Your task to perform on an android device: Open internet settings Image 0: 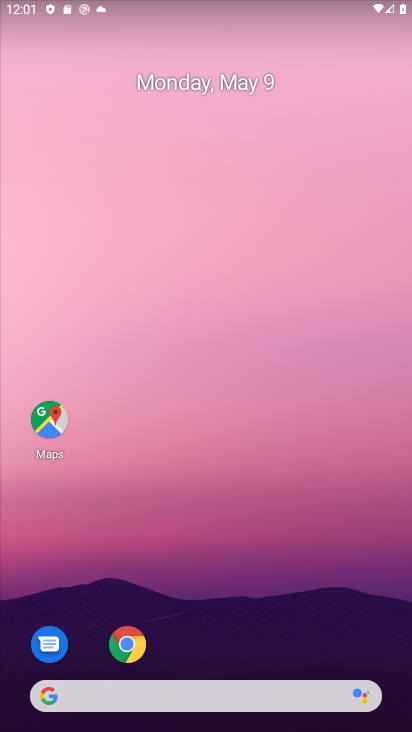
Step 0: drag from (232, 629) to (196, 41)
Your task to perform on an android device: Open internet settings Image 1: 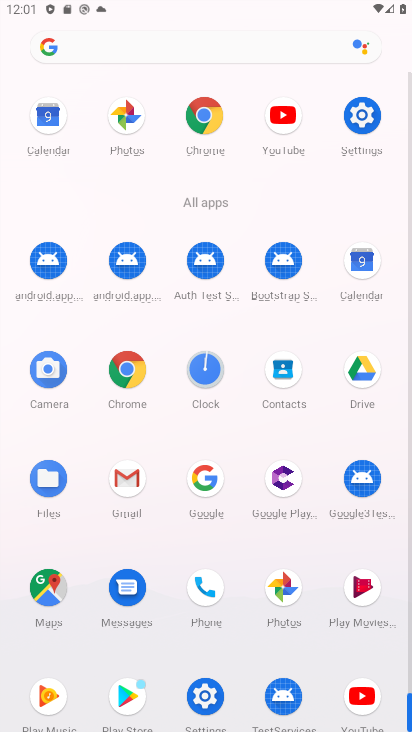
Step 1: click (371, 113)
Your task to perform on an android device: Open internet settings Image 2: 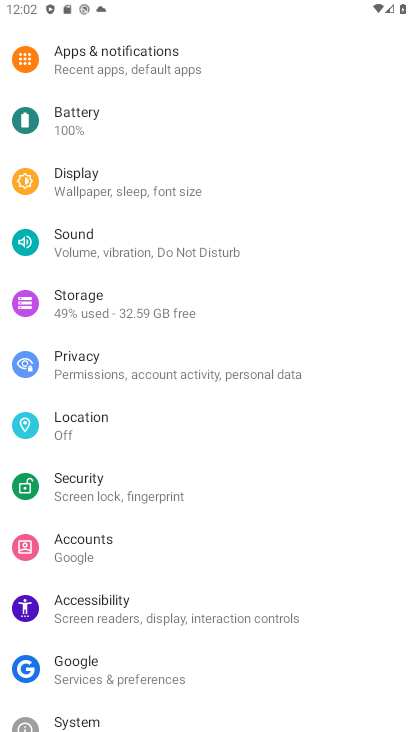
Step 2: drag from (108, 141) to (139, 416)
Your task to perform on an android device: Open internet settings Image 3: 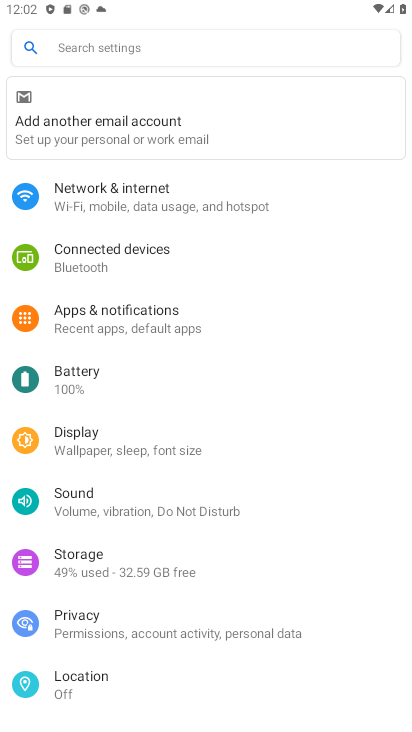
Step 3: click (104, 204)
Your task to perform on an android device: Open internet settings Image 4: 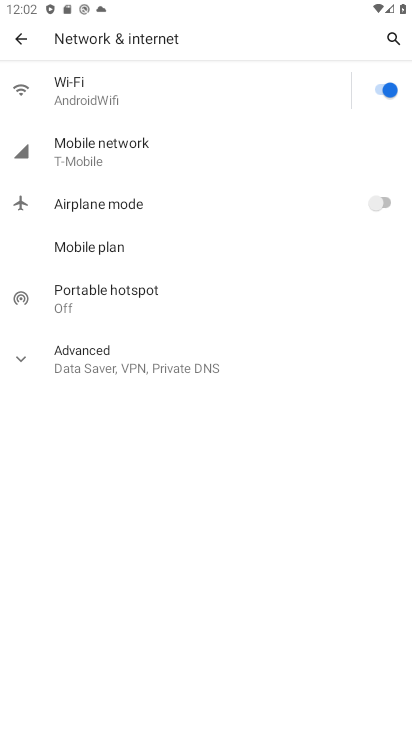
Step 4: task complete